Your task to perform on an android device: Go to calendar. Show me events next week Image 0: 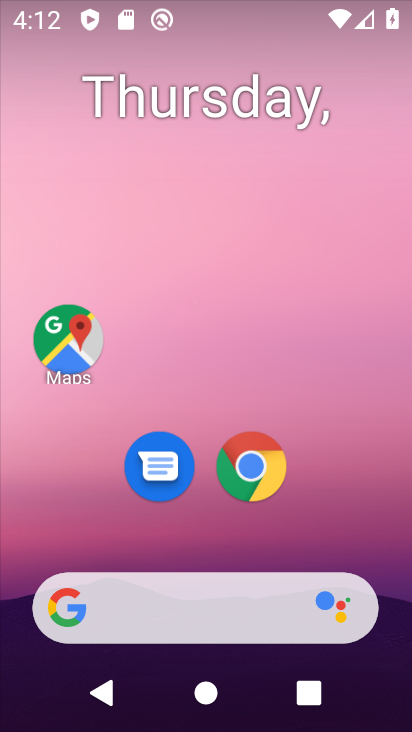
Step 0: drag from (353, 475) to (335, 37)
Your task to perform on an android device: Go to calendar. Show me events next week Image 1: 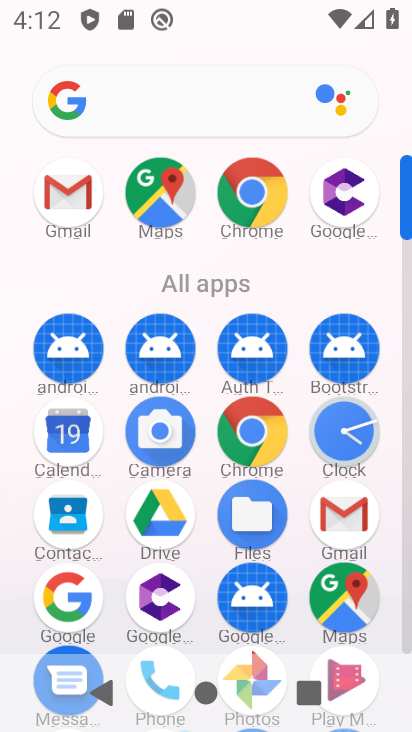
Step 1: click (58, 440)
Your task to perform on an android device: Go to calendar. Show me events next week Image 2: 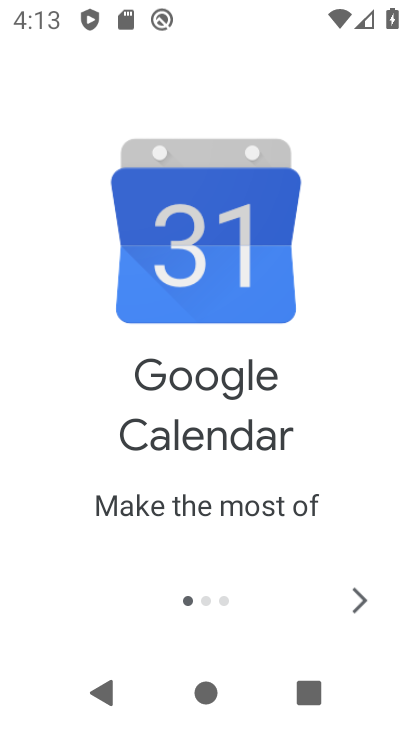
Step 2: click (358, 603)
Your task to perform on an android device: Go to calendar. Show me events next week Image 3: 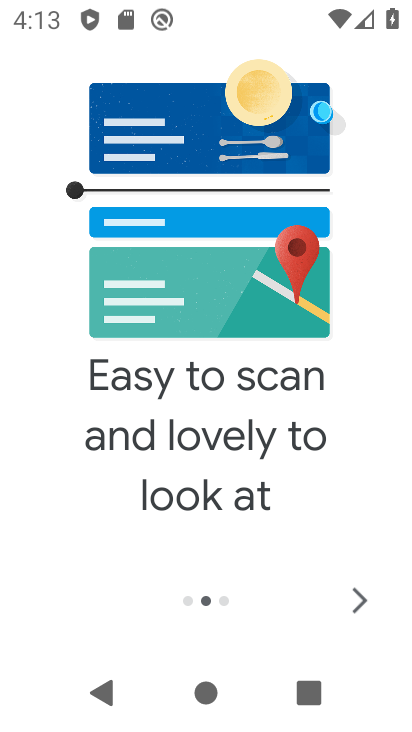
Step 3: click (359, 605)
Your task to perform on an android device: Go to calendar. Show me events next week Image 4: 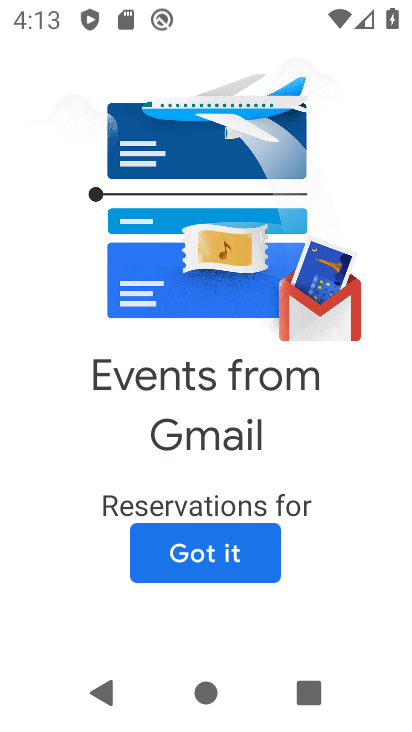
Step 4: click (263, 574)
Your task to perform on an android device: Go to calendar. Show me events next week Image 5: 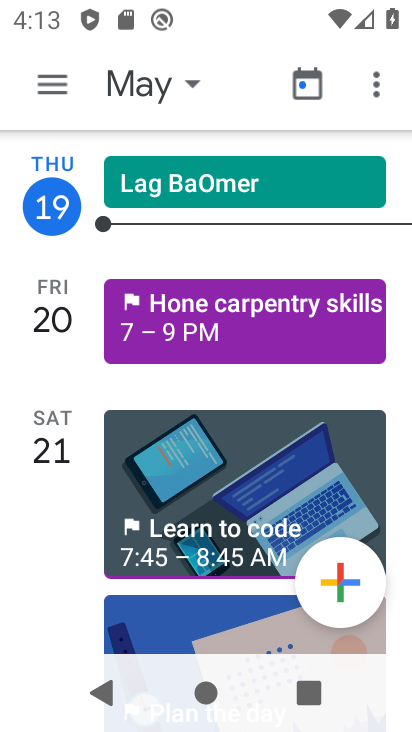
Step 5: click (141, 91)
Your task to perform on an android device: Go to calendar. Show me events next week Image 6: 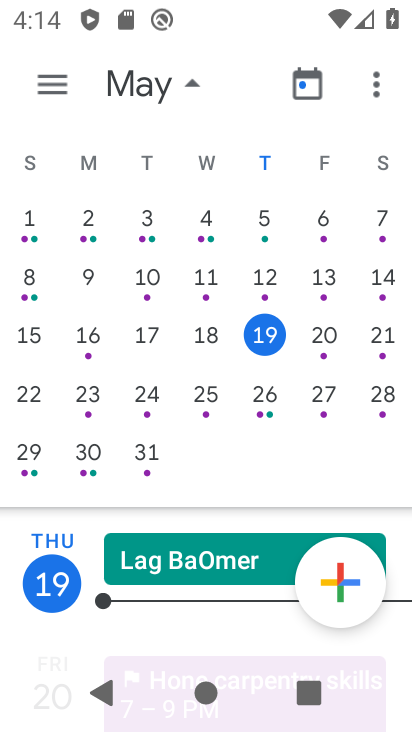
Step 6: click (277, 393)
Your task to perform on an android device: Go to calendar. Show me events next week Image 7: 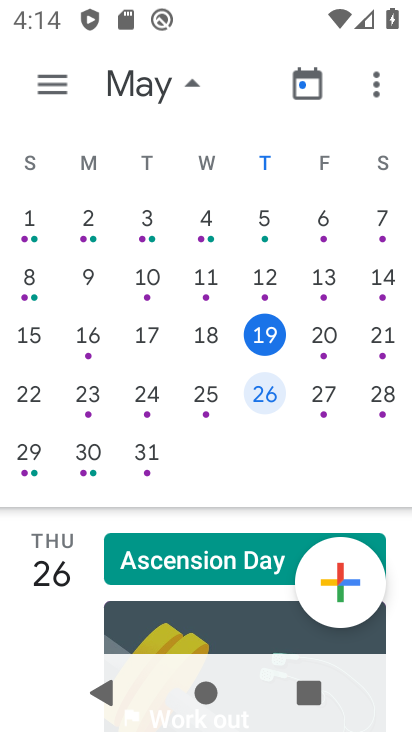
Step 7: task complete